Your task to perform on an android device: Open calendar and show me the third week of next month Image 0: 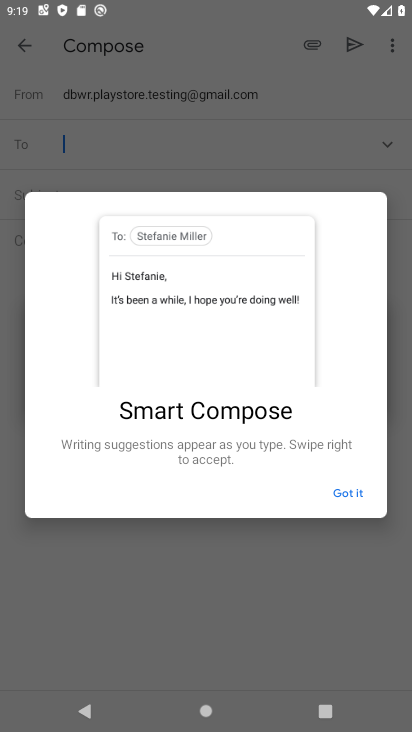
Step 0: press home button
Your task to perform on an android device: Open calendar and show me the third week of next month Image 1: 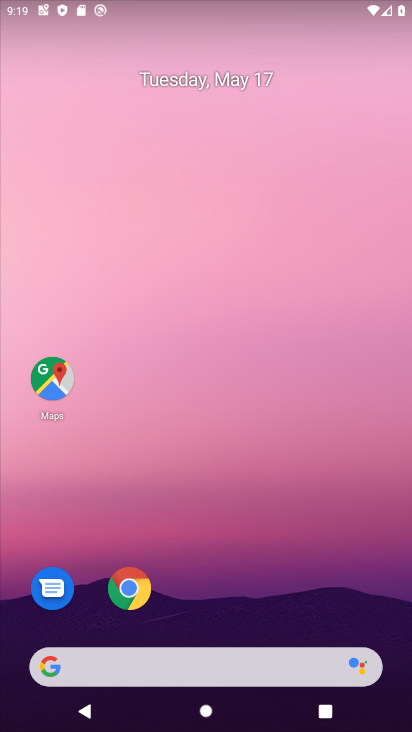
Step 1: drag from (201, 631) to (286, 21)
Your task to perform on an android device: Open calendar and show me the third week of next month Image 2: 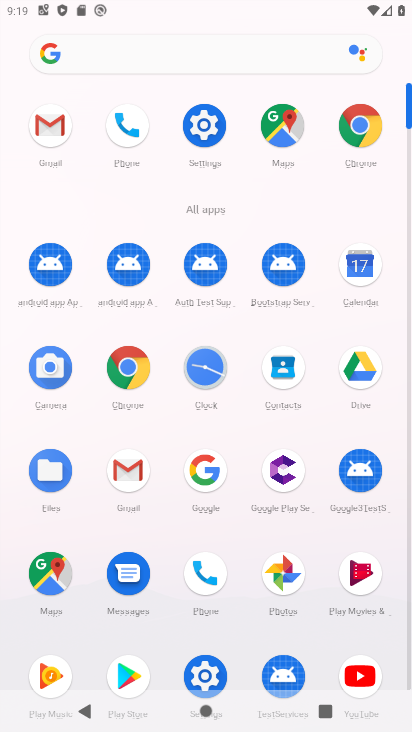
Step 2: click (357, 272)
Your task to perform on an android device: Open calendar and show me the third week of next month Image 3: 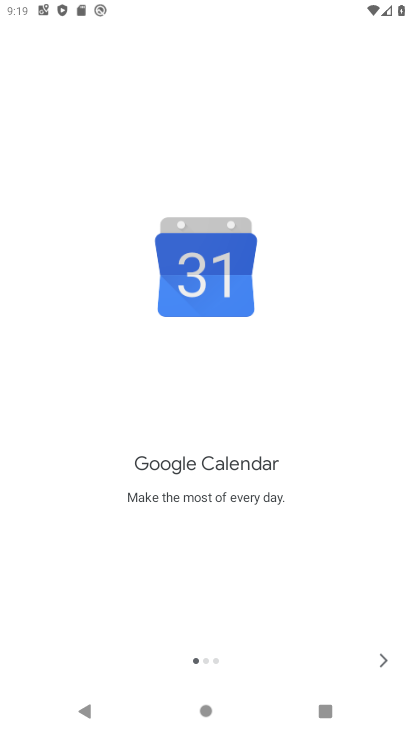
Step 3: click (381, 657)
Your task to perform on an android device: Open calendar and show me the third week of next month Image 4: 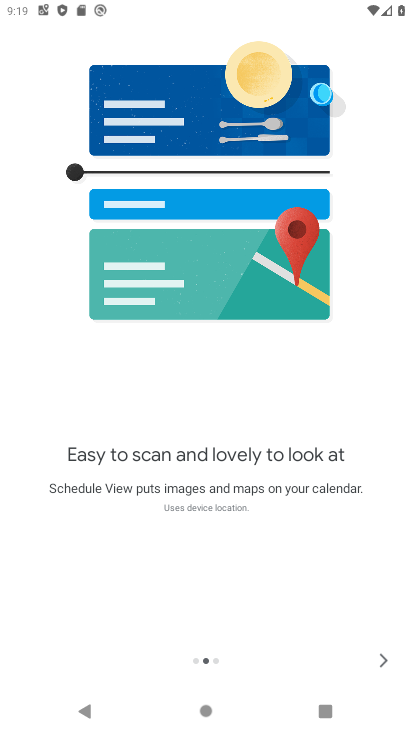
Step 4: click (381, 657)
Your task to perform on an android device: Open calendar and show me the third week of next month Image 5: 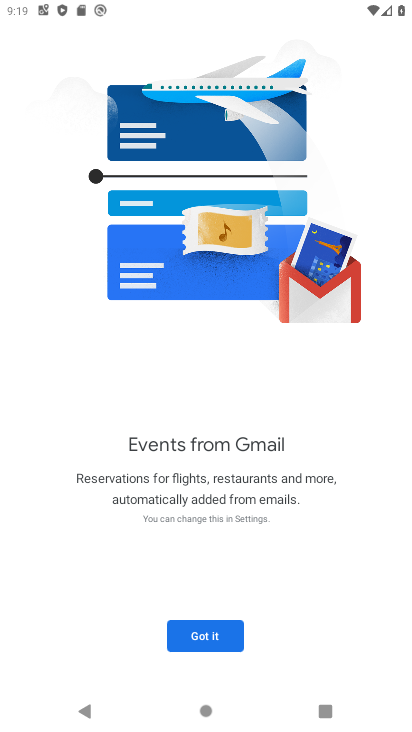
Step 5: click (143, 633)
Your task to perform on an android device: Open calendar and show me the third week of next month Image 6: 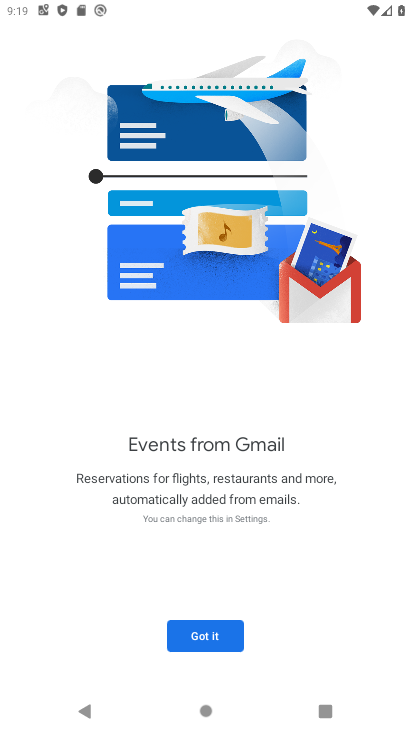
Step 6: click (173, 637)
Your task to perform on an android device: Open calendar and show me the third week of next month Image 7: 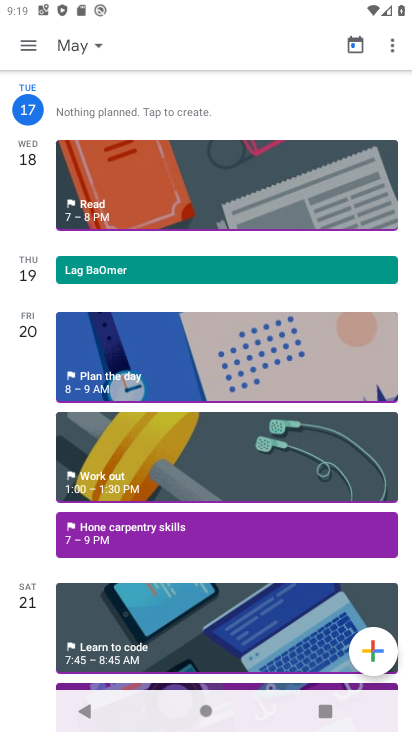
Step 7: click (27, 48)
Your task to perform on an android device: Open calendar and show me the third week of next month Image 8: 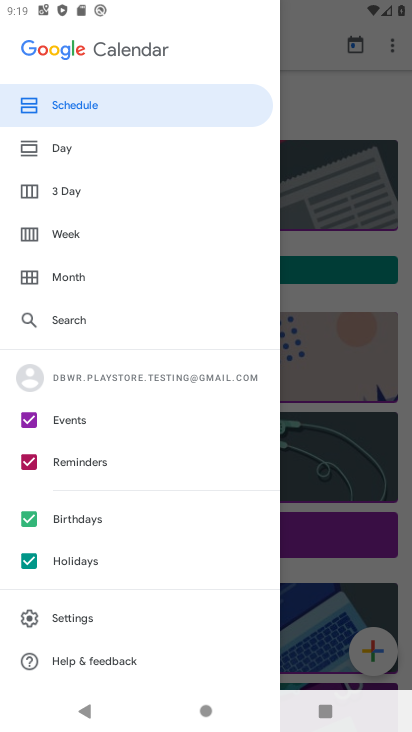
Step 8: click (100, 220)
Your task to perform on an android device: Open calendar and show me the third week of next month Image 9: 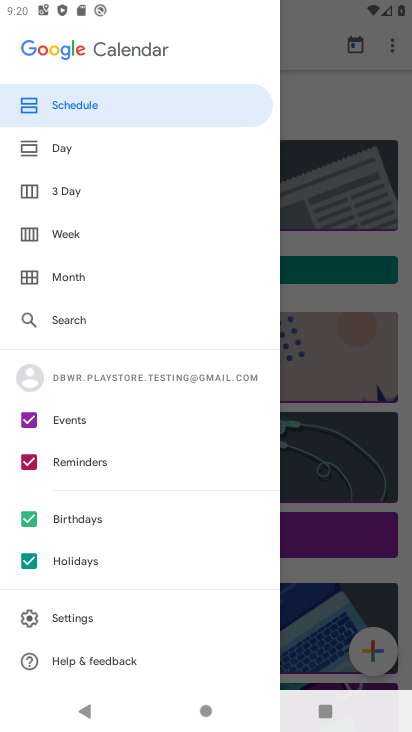
Step 9: click (40, 242)
Your task to perform on an android device: Open calendar and show me the third week of next month Image 10: 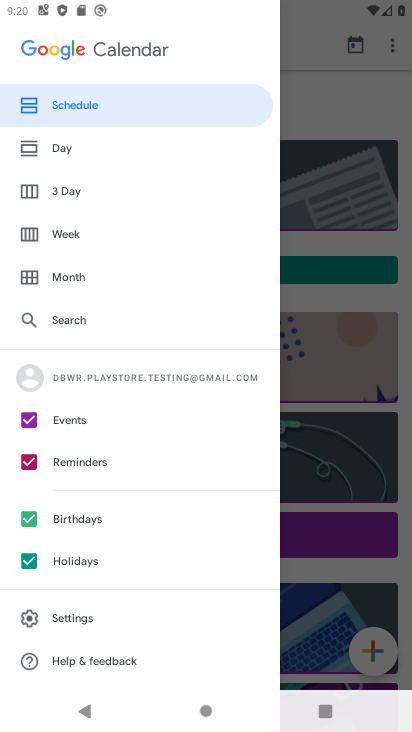
Step 10: click (77, 237)
Your task to perform on an android device: Open calendar and show me the third week of next month Image 11: 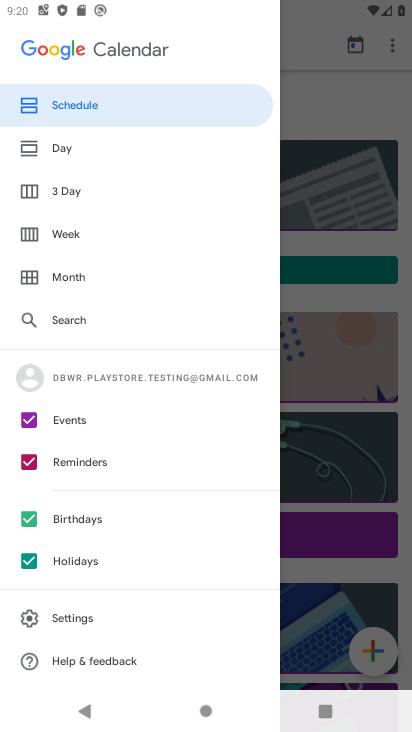
Step 11: click (76, 237)
Your task to perform on an android device: Open calendar and show me the third week of next month Image 12: 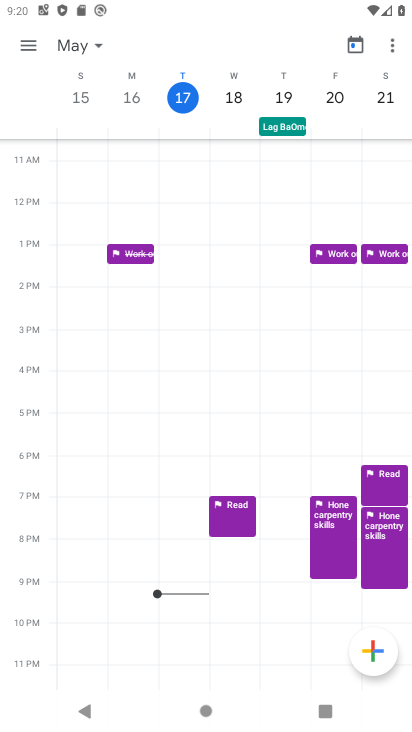
Step 12: task complete